Your task to perform on an android device: What is the capital of Sweden? Image 0: 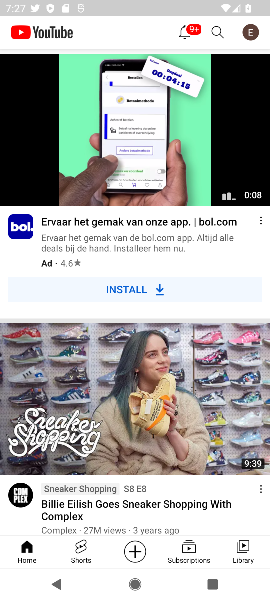
Step 0: press home button
Your task to perform on an android device: What is the capital of Sweden? Image 1: 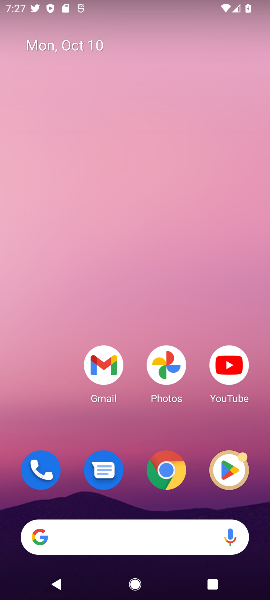
Step 1: click (167, 461)
Your task to perform on an android device: What is the capital of Sweden? Image 2: 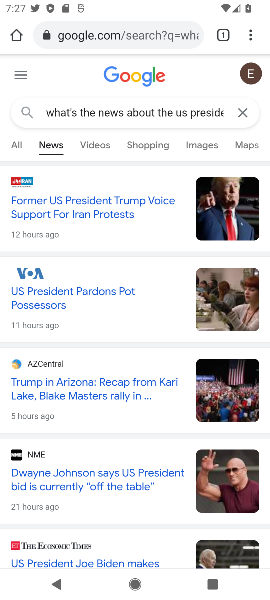
Step 2: click (120, 33)
Your task to perform on an android device: What is the capital of Sweden? Image 3: 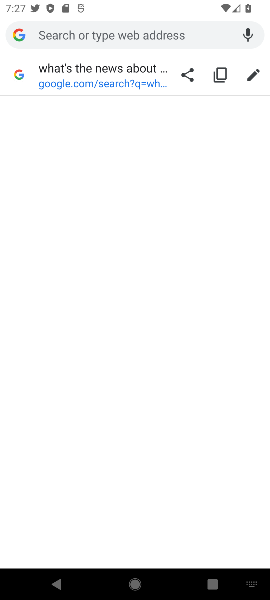
Step 3: type "What is the capital of Sweden?"
Your task to perform on an android device: What is the capital of Sweden? Image 4: 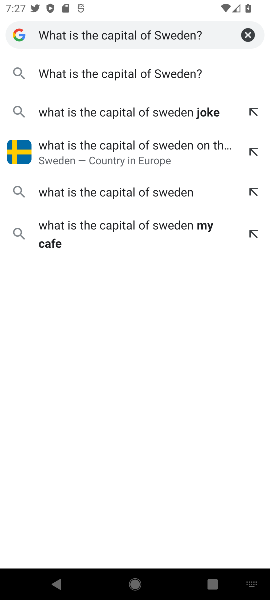
Step 4: click (106, 76)
Your task to perform on an android device: What is the capital of Sweden? Image 5: 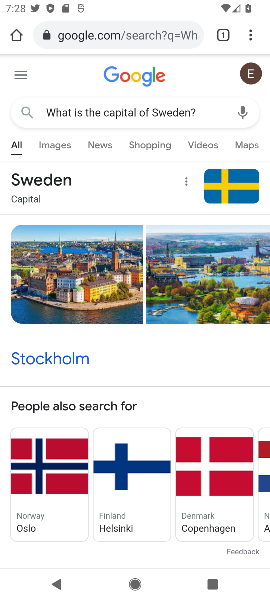
Step 5: task complete